Your task to perform on an android device: Open Yahoo.com Image 0: 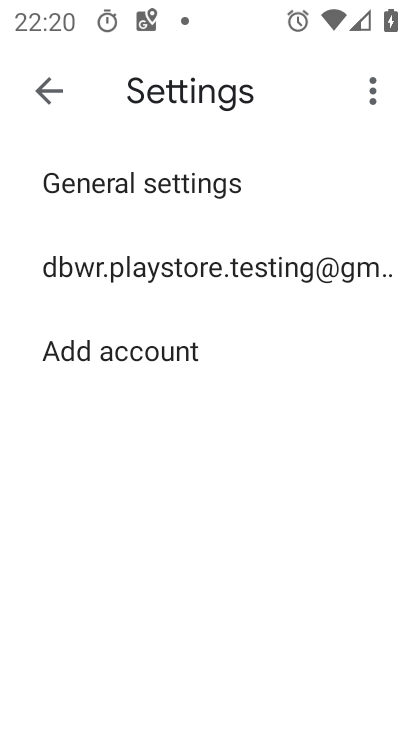
Step 0: press home button
Your task to perform on an android device: Open Yahoo.com Image 1: 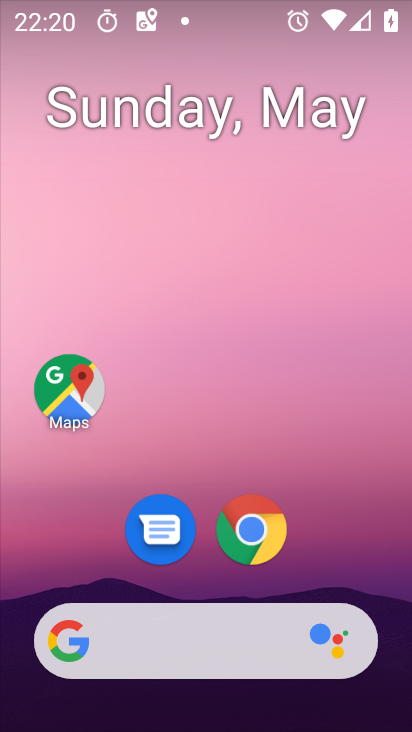
Step 1: click (259, 533)
Your task to perform on an android device: Open Yahoo.com Image 2: 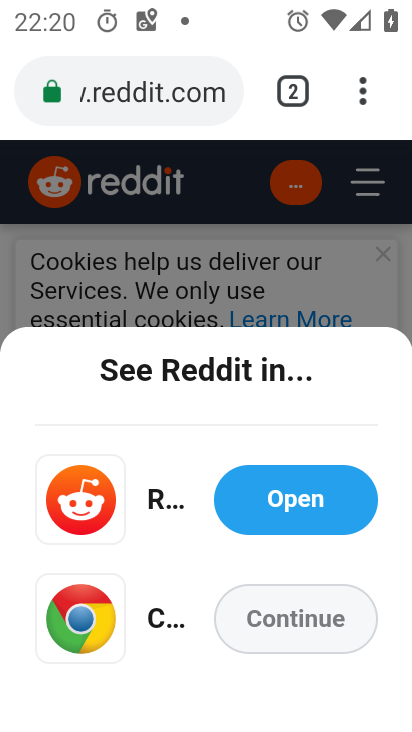
Step 2: click (129, 91)
Your task to perform on an android device: Open Yahoo.com Image 3: 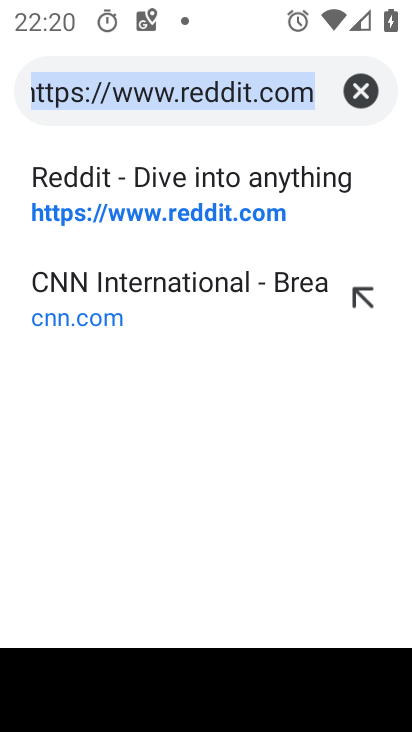
Step 3: click (368, 101)
Your task to perform on an android device: Open Yahoo.com Image 4: 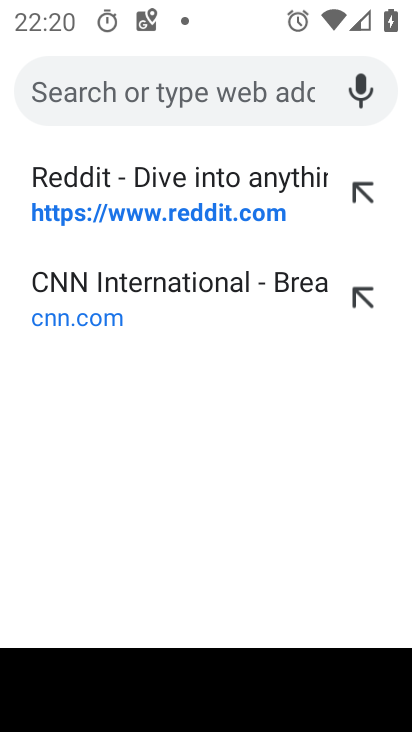
Step 4: type "yahoo.com"
Your task to perform on an android device: Open Yahoo.com Image 5: 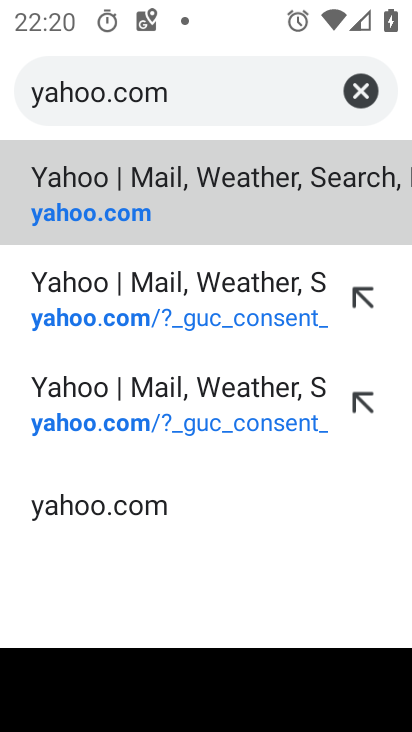
Step 5: click (112, 209)
Your task to perform on an android device: Open Yahoo.com Image 6: 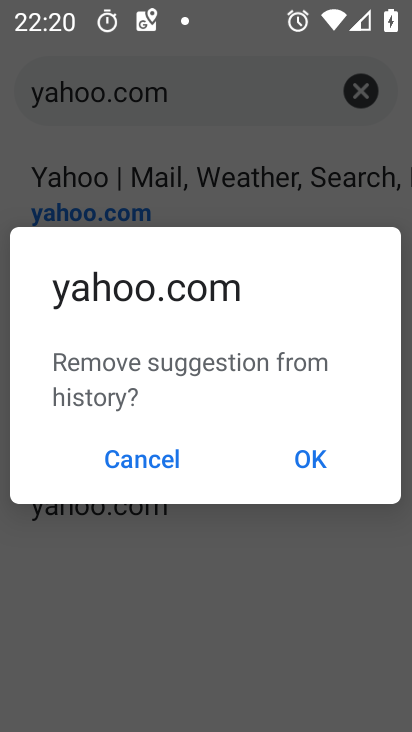
Step 6: click (119, 465)
Your task to perform on an android device: Open Yahoo.com Image 7: 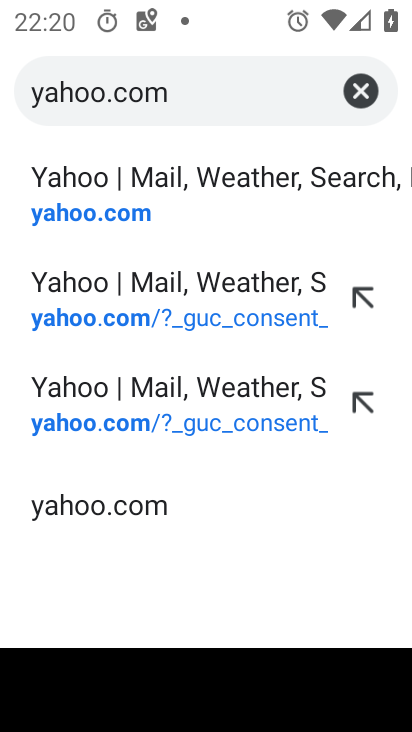
Step 7: click (67, 218)
Your task to perform on an android device: Open Yahoo.com Image 8: 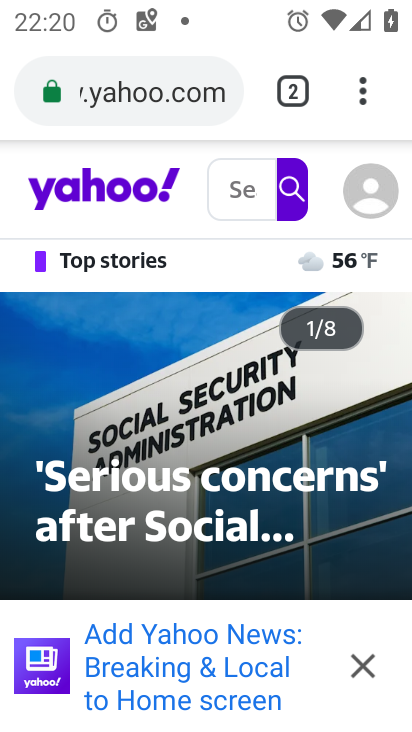
Step 8: task complete